Your task to perform on an android device: turn on improve location accuracy Image 0: 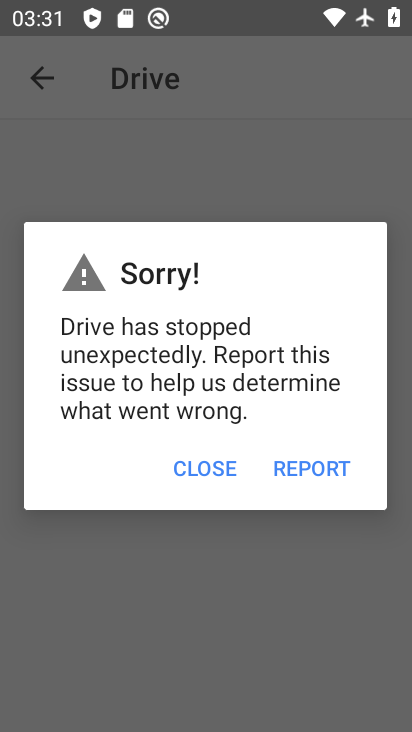
Step 0: press home button
Your task to perform on an android device: turn on improve location accuracy Image 1: 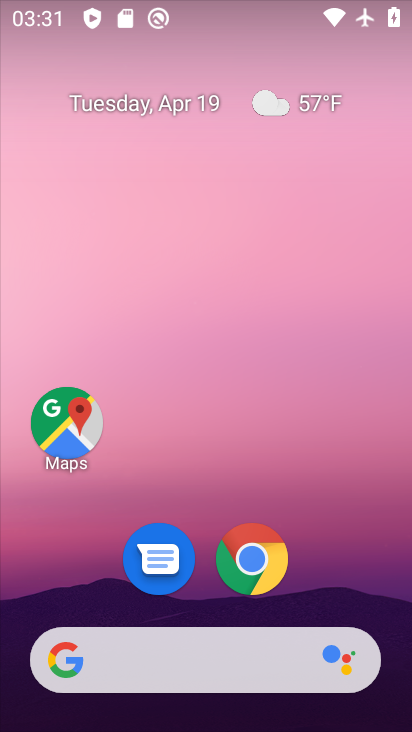
Step 1: drag from (208, 606) to (216, 5)
Your task to perform on an android device: turn on improve location accuracy Image 2: 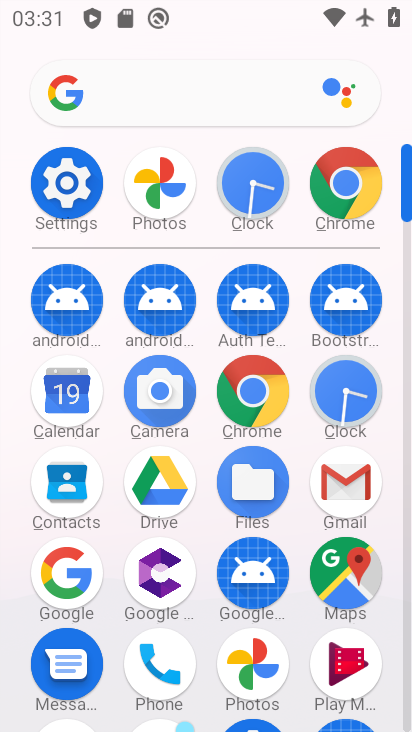
Step 2: click (64, 191)
Your task to perform on an android device: turn on improve location accuracy Image 3: 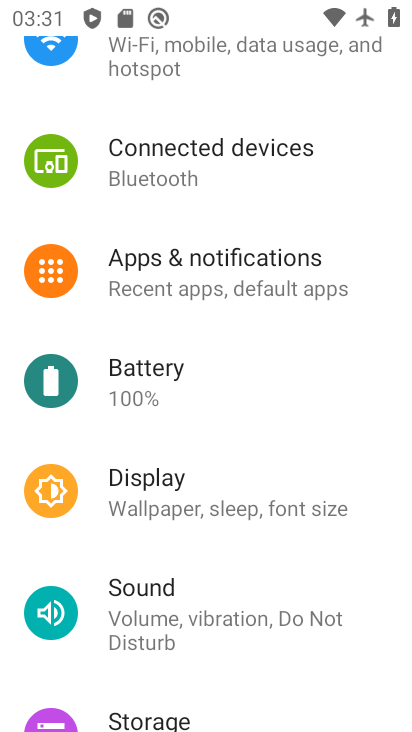
Step 3: drag from (207, 575) to (223, 72)
Your task to perform on an android device: turn on improve location accuracy Image 4: 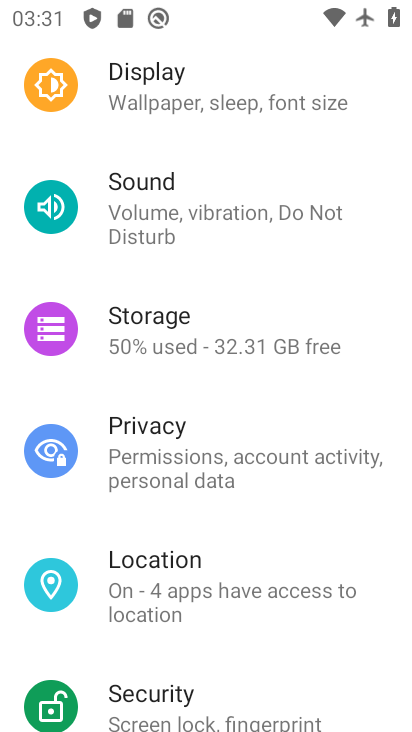
Step 4: click (183, 587)
Your task to perform on an android device: turn on improve location accuracy Image 5: 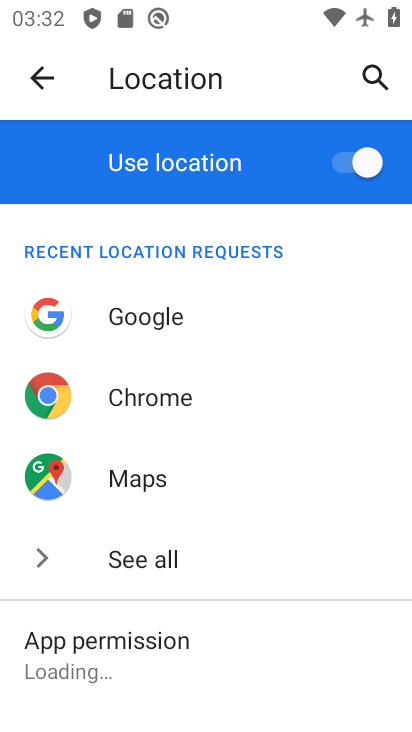
Step 5: drag from (189, 637) to (219, 87)
Your task to perform on an android device: turn on improve location accuracy Image 6: 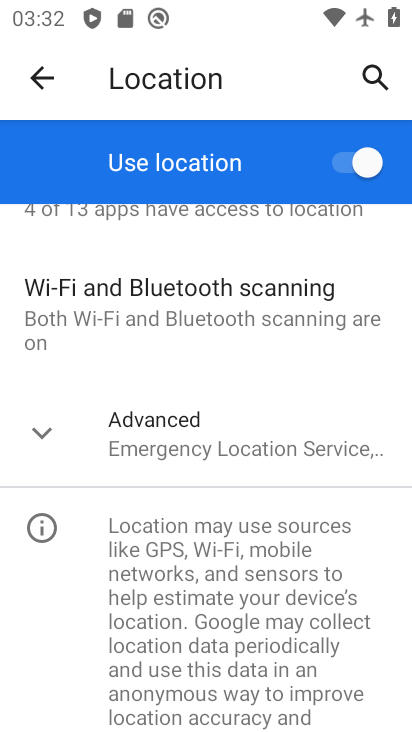
Step 6: click (36, 429)
Your task to perform on an android device: turn on improve location accuracy Image 7: 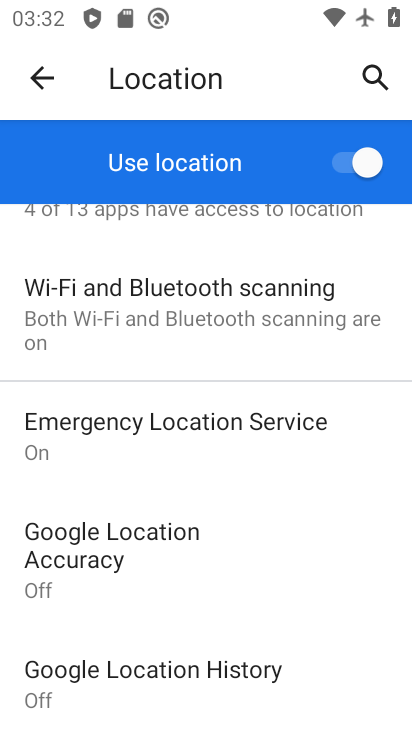
Step 7: click (148, 548)
Your task to perform on an android device: turn on improve location accuracy Image 8: 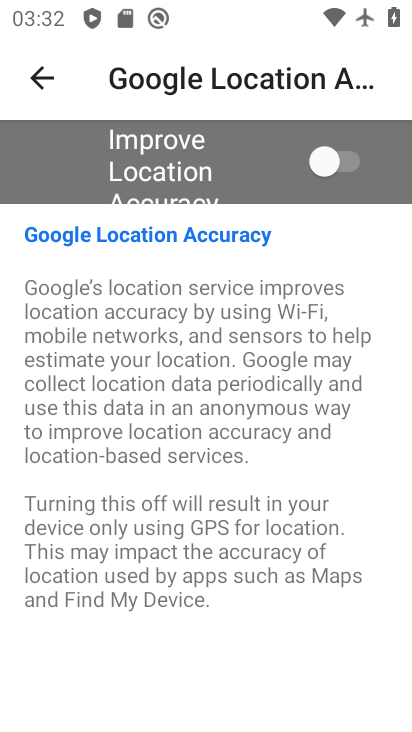
Step 8: click (341, 155)
Your task to perform on an android device: turn on improve location accuracy Image 9: 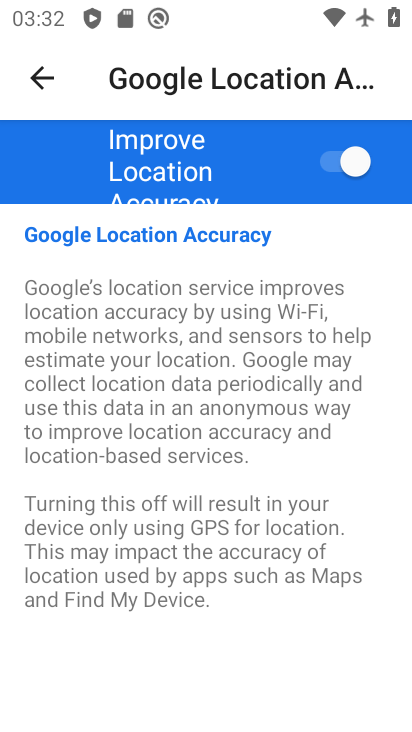
Step 9: task complete